Your task to perform on an android device: turn off location history Image 0: 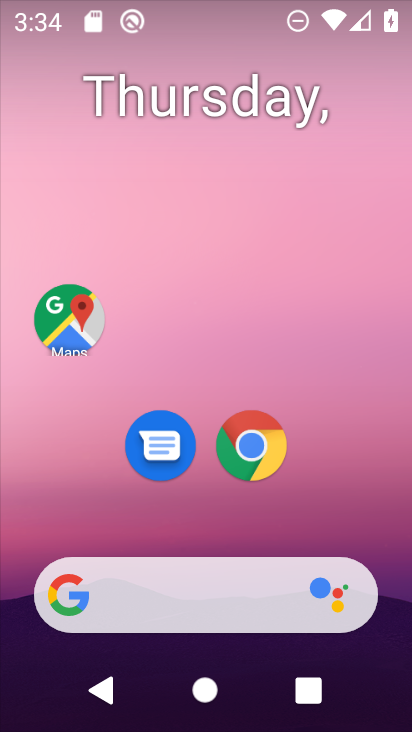
Step 0: drag from (349, 511) to (274, 37)
Your task to perform on an android device: turn off location history Image 1: 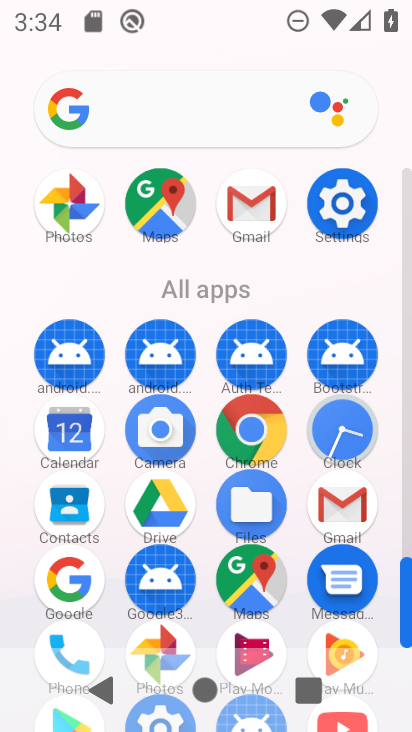
Step 1: click (347, 203)
Your task to perform on an android device: turn off location history Image 2: 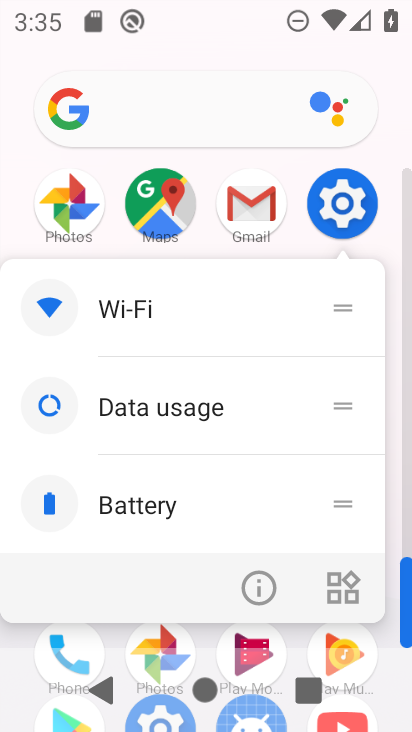
Step 2: click (342, 202)
Your task to perform on an android device: turn off location history Image 3: 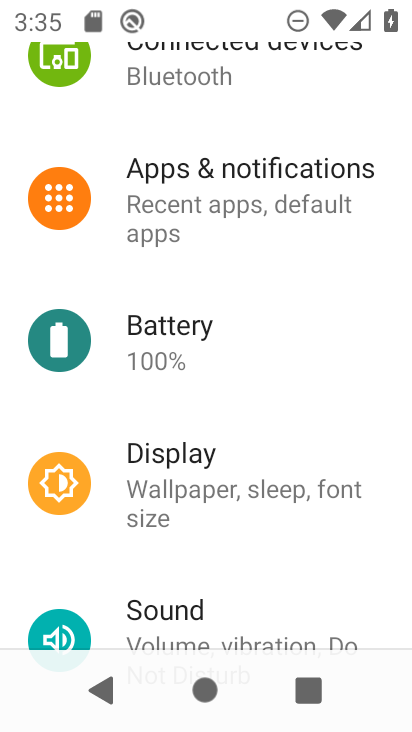
Step 3: drag from (247, 449) to (272, 261)
Your task to perform on an android device: turn off location history Image 4: 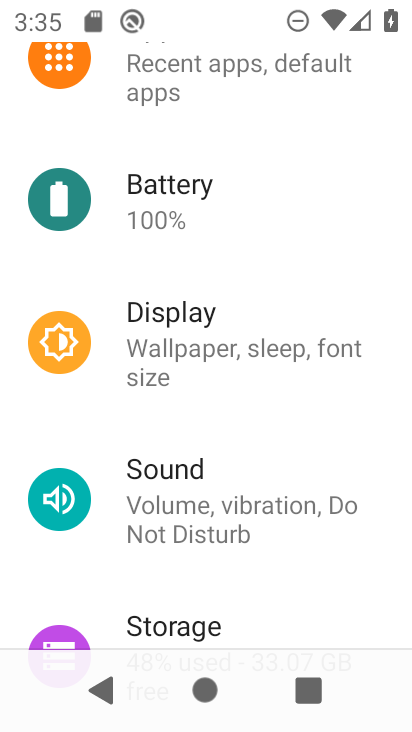
Step 4: drag from (244, 447) to (266, 280)
Your task to perform on an android device: turn off location history Image 5: 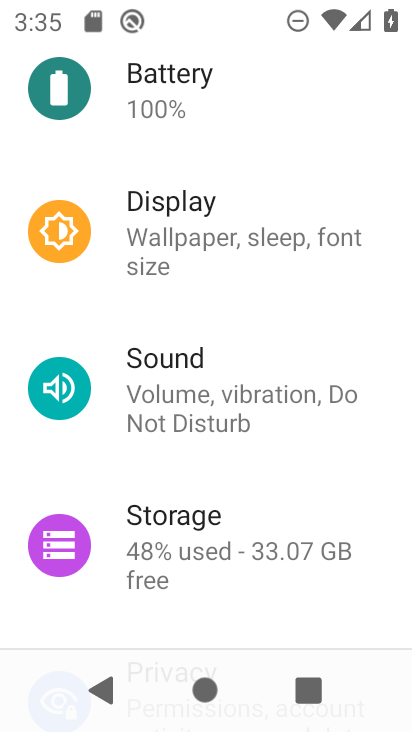
Step 5: drag from (285, 493) to (308, 280)
Your task to perform on an android device: turn off location history Image 6: 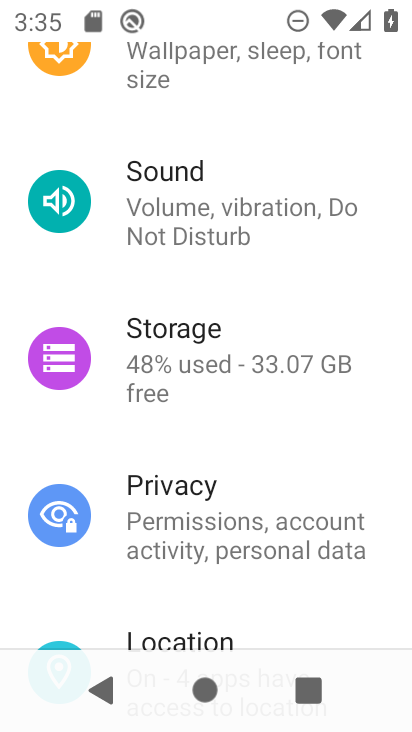
Step 6: drag from (249, 476) to (296, 293)
Your task to perform on an android device: turn off location history Image 7: 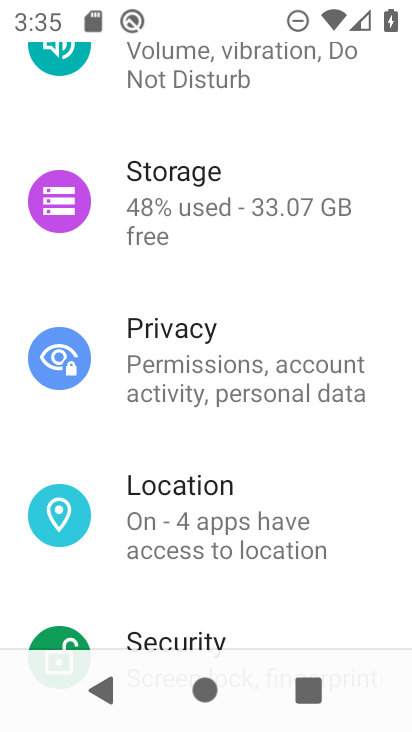
Step 7: drag from (245, 462) to (297, 326)
Your task to perform on an android device: turn off location history Image 8: 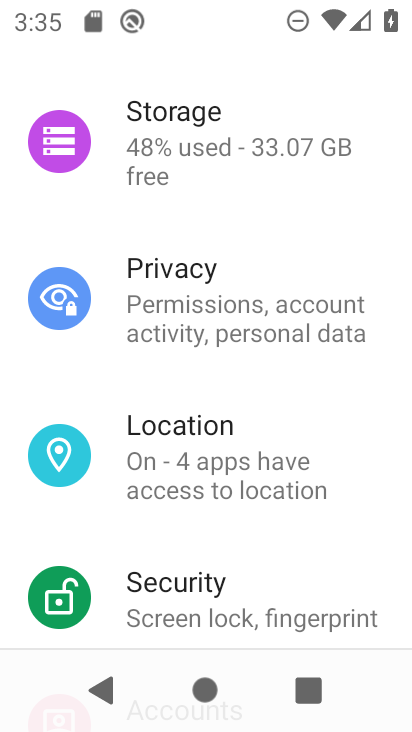
Step 8: click (177, 425)
Your task to perform on an android device: turn off location history Image 9: 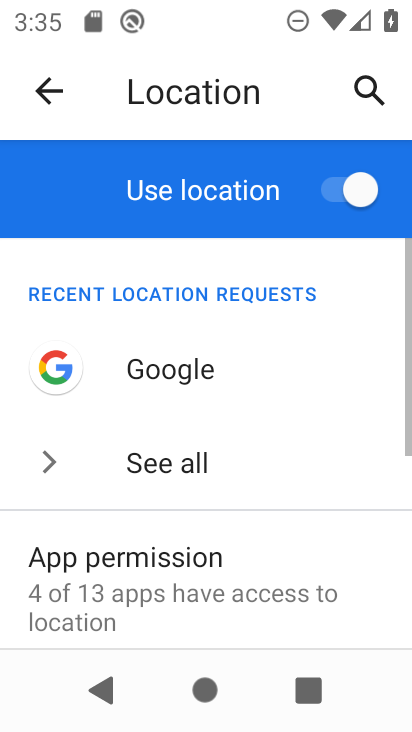
Step 9: drag from (277, 457) to (259, 127)
Your task to perform on an android device: turn off location history Image 10: 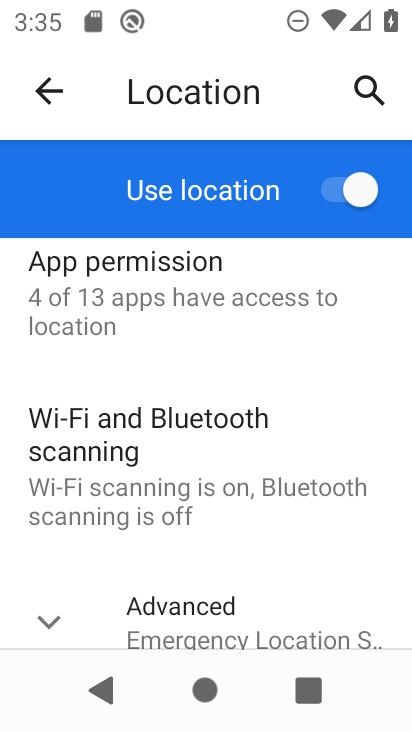
Step 10: drag from (223, 556) to (262, 407)
Your task to perform on an android device: turn off location history Image 11: 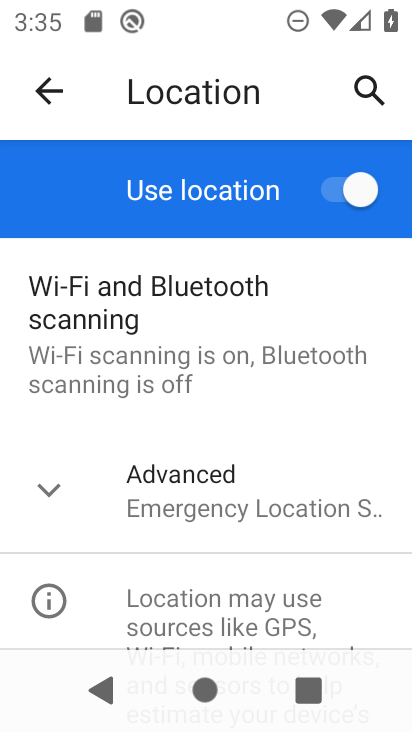
Step 11: click (201, 492)
Your task to perform on an android device: turn off location history Image 12: 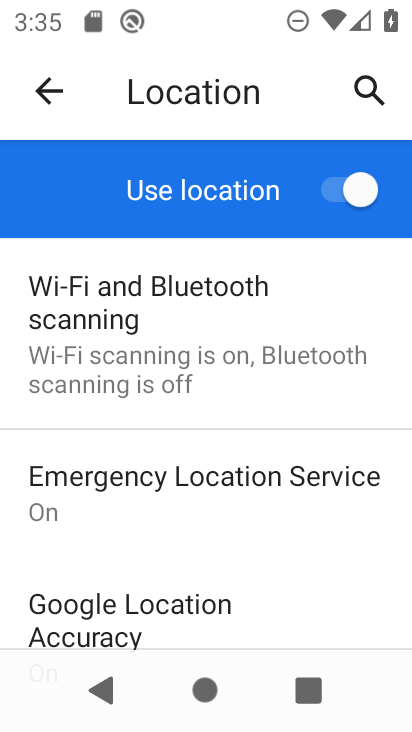
Step 12: drag from (198, 547) to (283, 345)
Your task to perform on an android device: turn off location history Image 13: 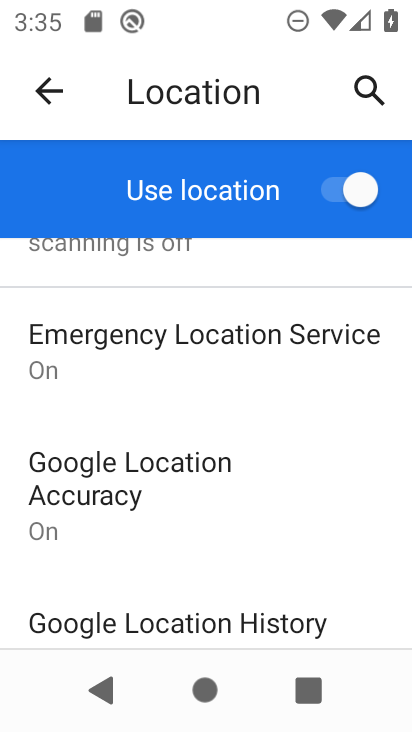
Step 13: drag from (158, 555) to (250, 383)
Your task to perform on an android device: turn off location history Image 14: 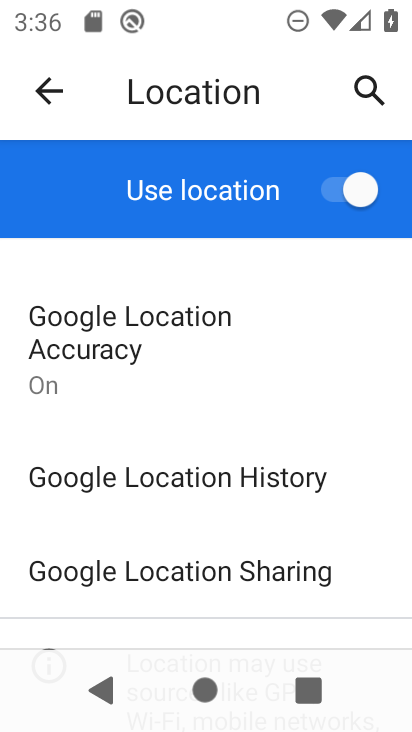
Step 14: click (193, 477)
Your task to perform on an android device: turn off location history Image 15: 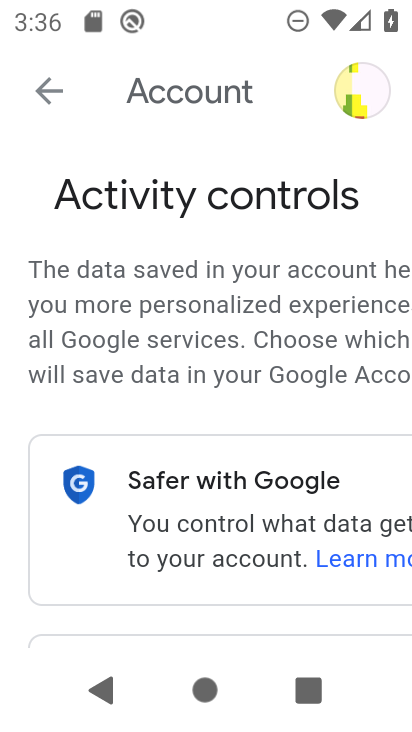
Step 15: task complete